Your task to perform on an android device: turn on showing notifications on the lock screen Image 0: 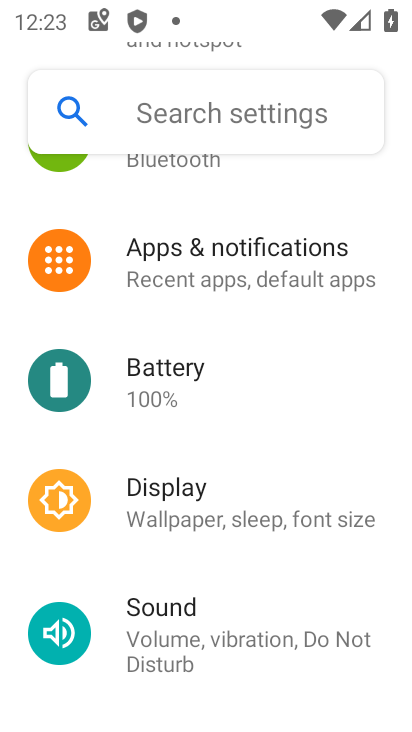
Step 0: press home button
Your task to perform on an android device: turn on showing notifications on the lock screen Image 1: 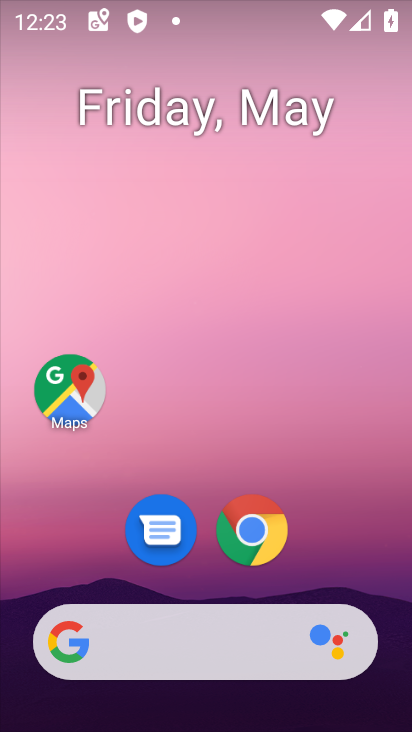
Step 1: drag from (343, 555) to (257, 130)
Your task to perform on an android device: turn on showing notifications on the lock screen Image 2: 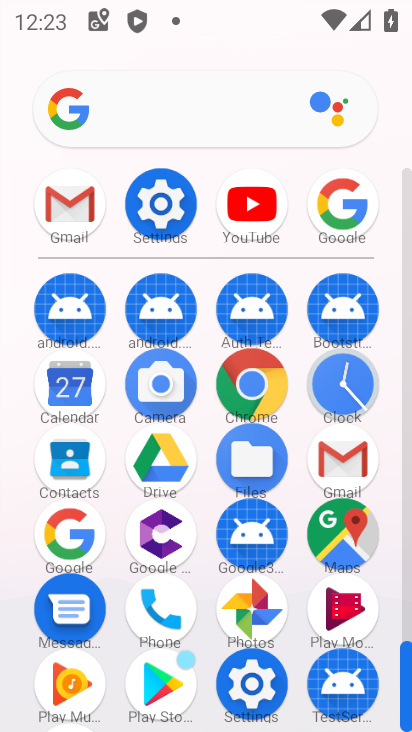
Step 2: click (161, 204)
Your task to perform on an android device: turn on showing notifications on the lock screen Image 3: 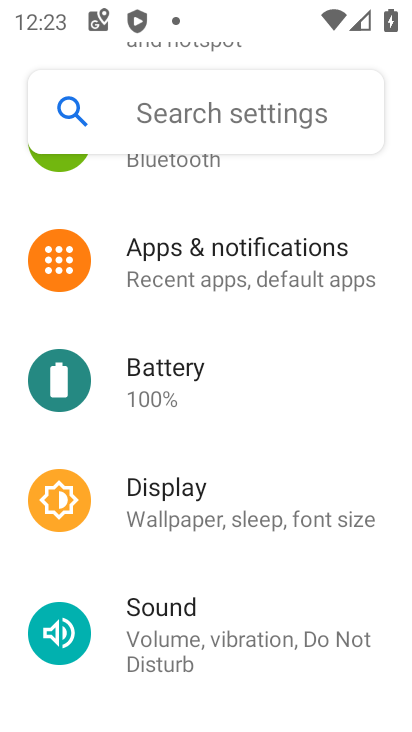
Step 3: drag from (158, 313) to (166, 438)
Your task to perform on an android device: turn on showing notifications on the lock screen Image 4: 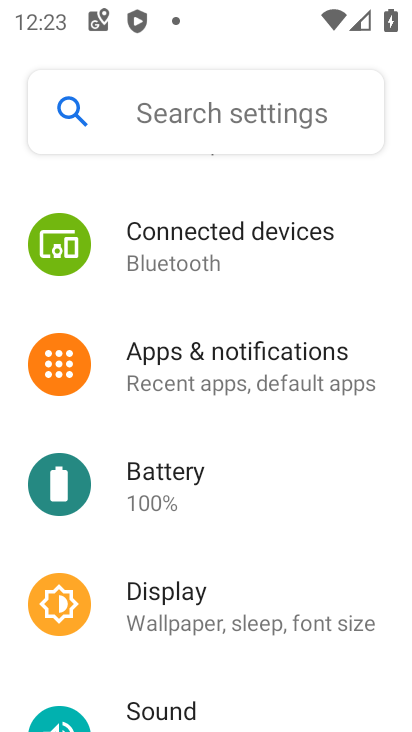
Step 4: click (252, 353)
Your task to perform on an android device: turn on showing notifications on the lock screen Image 5: 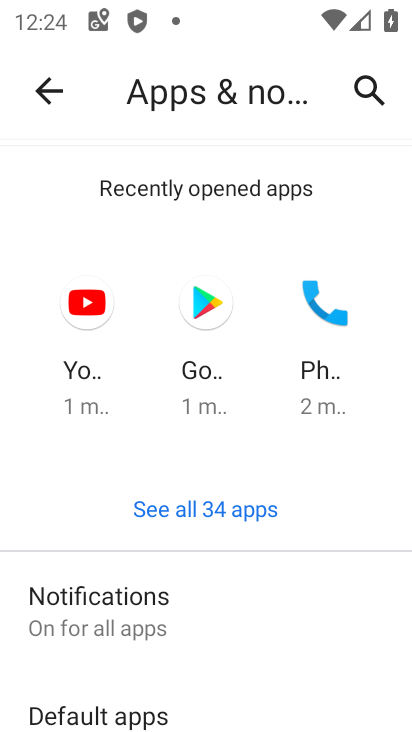
Step 5: click (137, 618)
Your task to perform on an android device: turn on showing notifications on the lock screen Image 6: 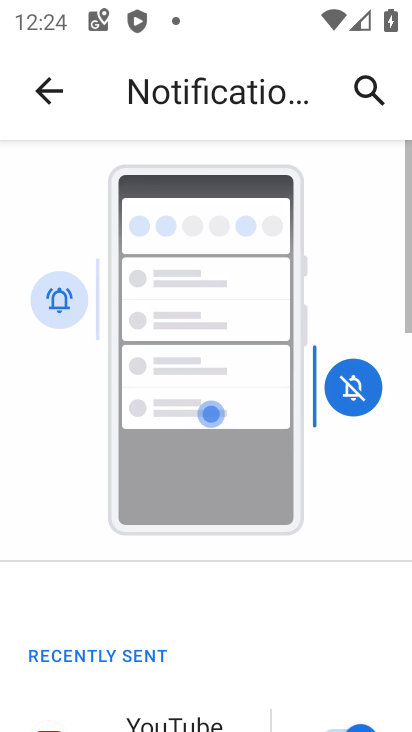
Step 6: drag from (265, 582) to (317, 274)
Your task to perform on an android device: turn on showing notifications on the lock screen Image 7: 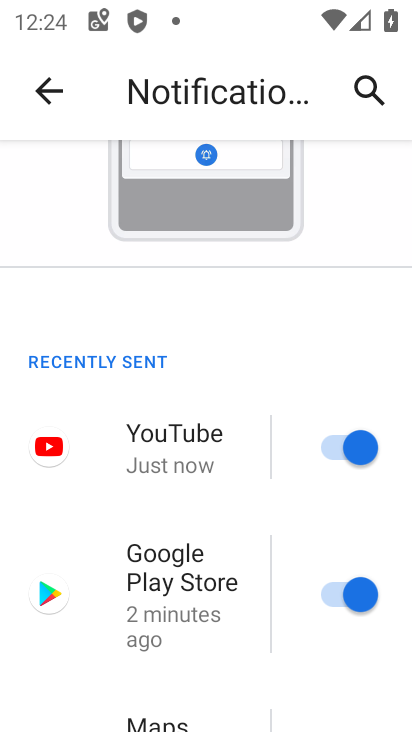
Step 7: drag from (238, 645) to (304, 316)
Your task to perform on an android device: turn on showing notifications on the lock screen Image 8: 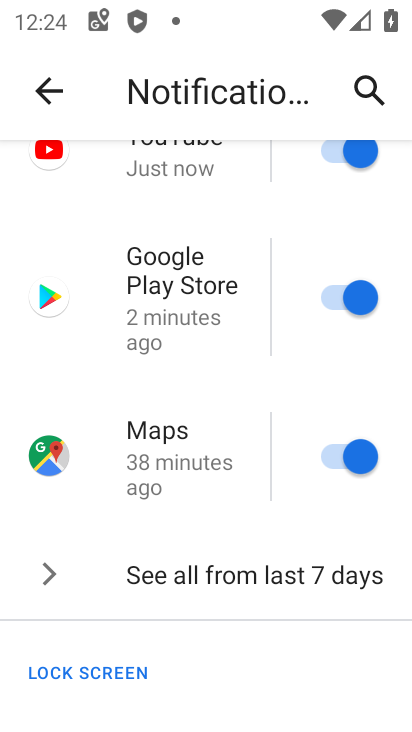
Step 8: drag from (208, 573) to (288, 312)
Your task to perform on an android device: turn on showing notifications on the lock screen Image 9: 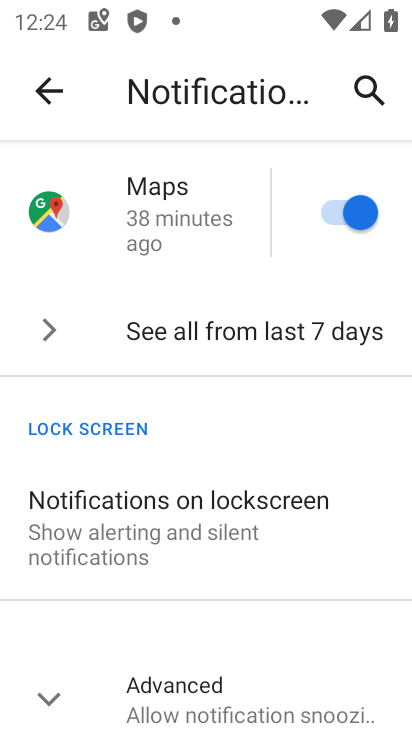
Step 9: click (236, 521)
Your task to perform on an android device: turn on showing notifications on the lock screen Image 10: 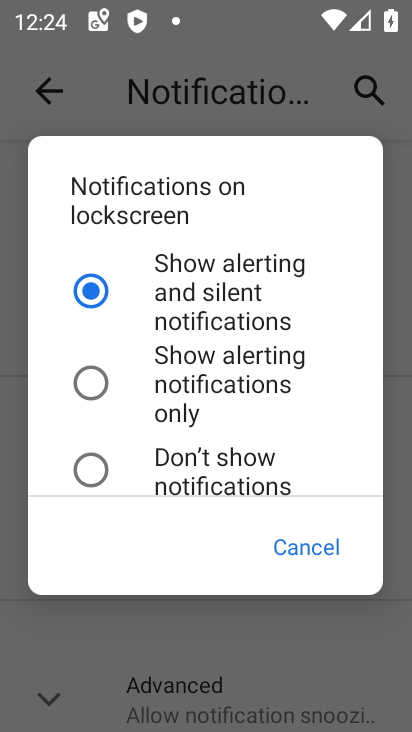
Step 10: click (99, 301)
Your task to perform on an android device: turn on showing notifications on the lock screen Image 11: 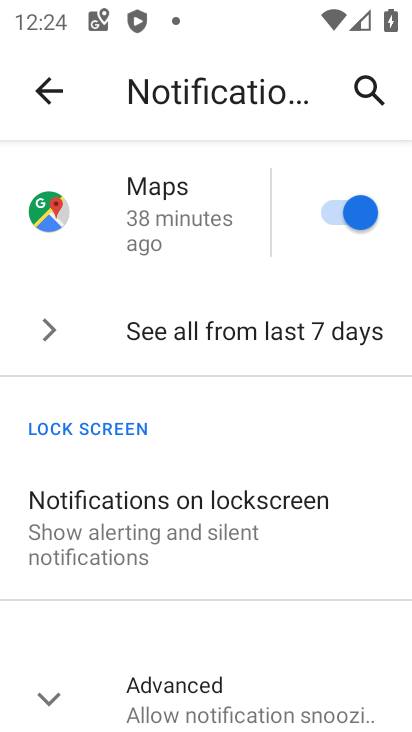
Step 11: task complete